Your task to perform on an android device: Open network settings Image 0: 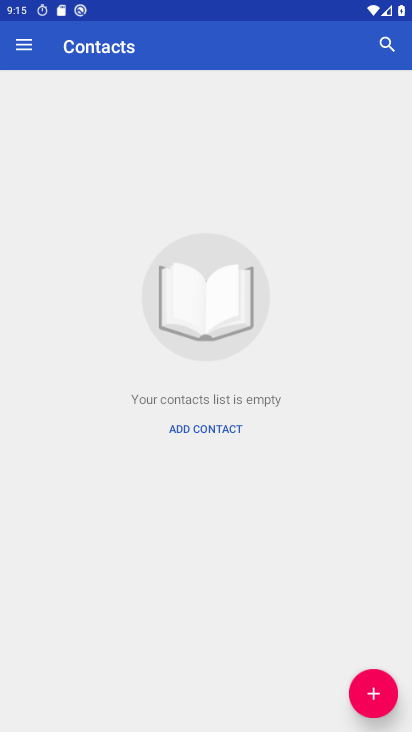
Step 0: press home button
Your task to perform on an android device: Open network settings Image 1: 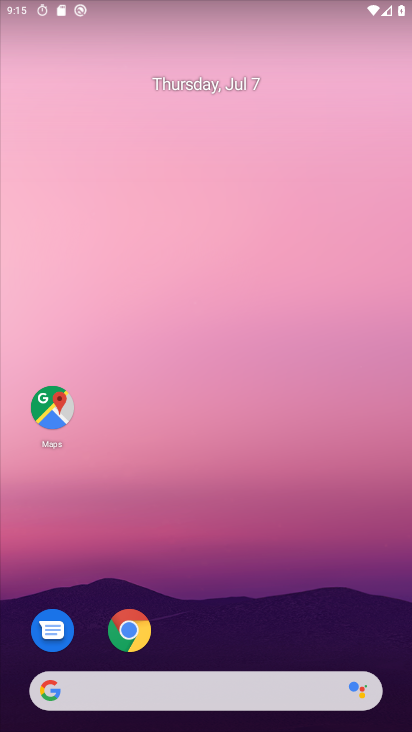
Step 1: drag from (29, 693) to (353, 38)
Your task to perform on an android device: Open network settings Image 2: 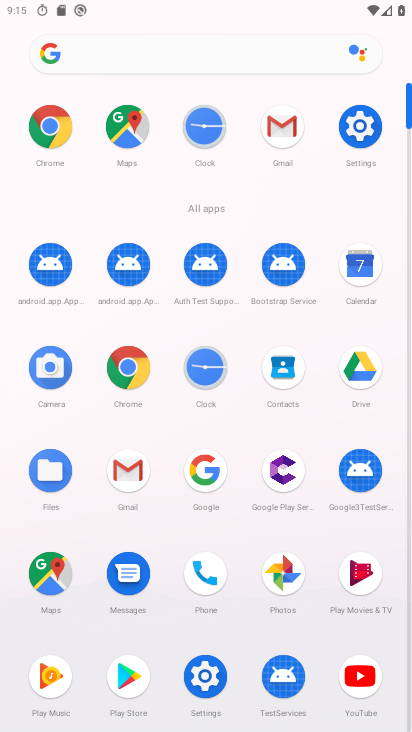
Step 2: click (202, 690)
Your task to perform on an android device: Open network settings Image 3: 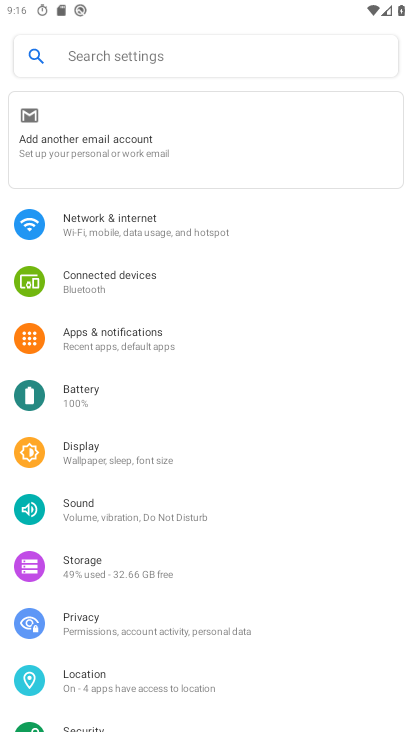
Step 3: click (159, 216)
Your task to perform on an android device: Open network settings Image 4: 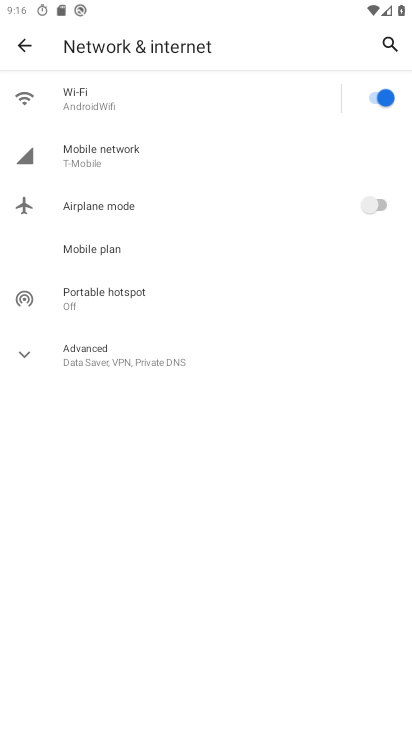
Step 4: task complete